Your task to perform on an android device: What's on my calendar tomorrow? Image 0: 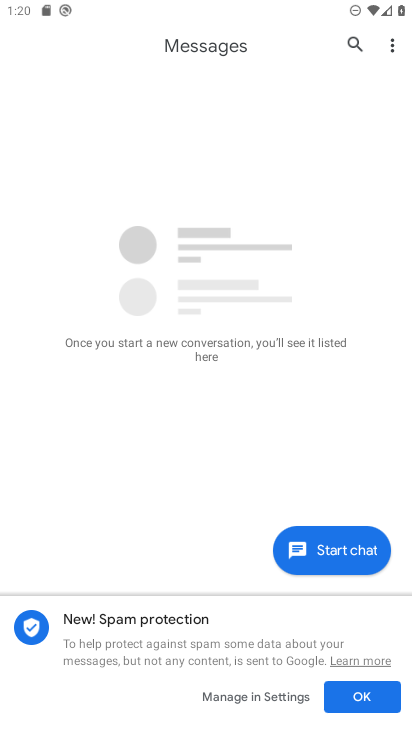
Step 0: press home button
Your task to perform on an android device: What's on my calendar tomorrow? Image 1: 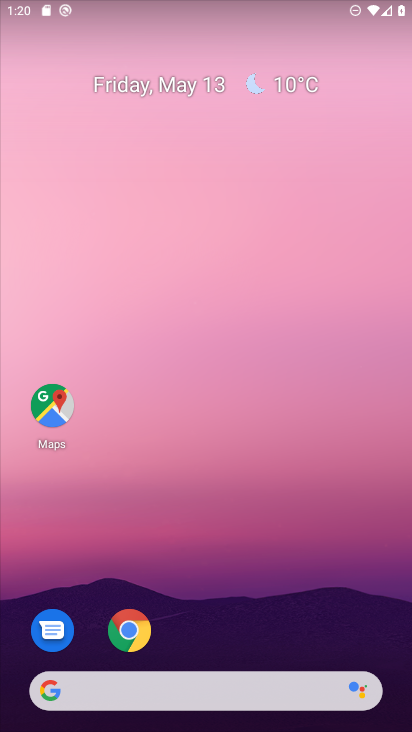
Step 1: drag from (203, 652) to (228, 321)
Your task to perform on an android device: What's on my calendar tomorrow? Image 2: 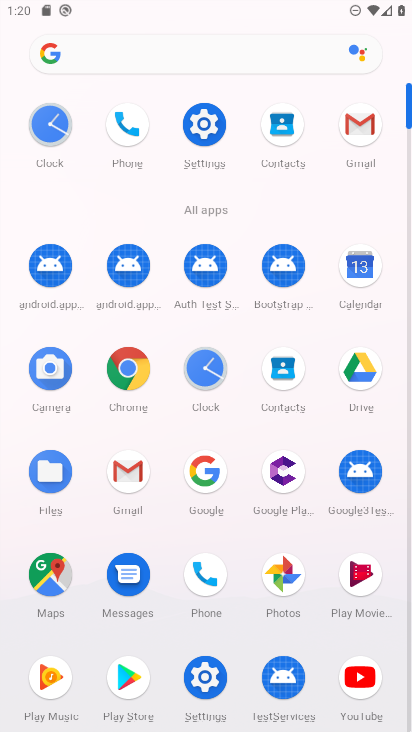
Step 2: click (361, 277)
Your task to perform on an android device: What's on my calendar tomorrow? Image 3: 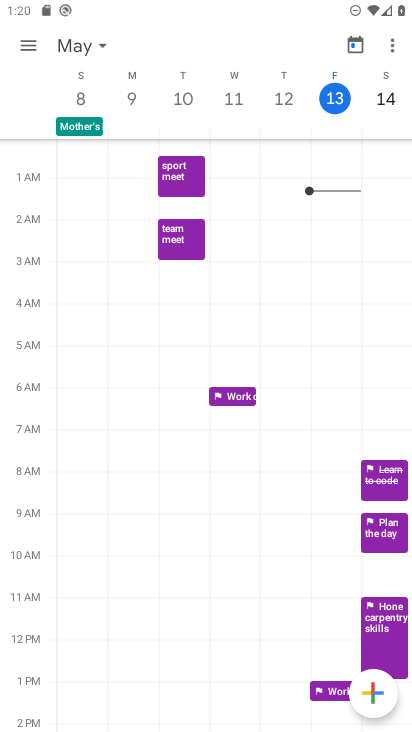
Step 3: click (22, 39)
Your task to perform on an android device: What's on my calendar tomorrow? Image 4: 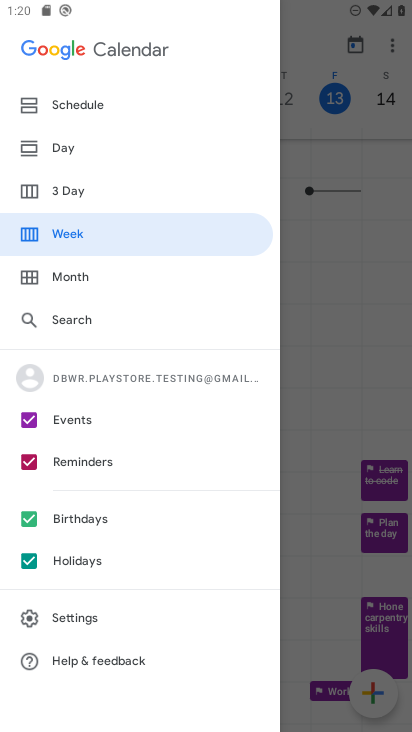
Step 4: click (94, 110)
Your task to perform on an android device: What's on my calendar tomorrow? Image 5: 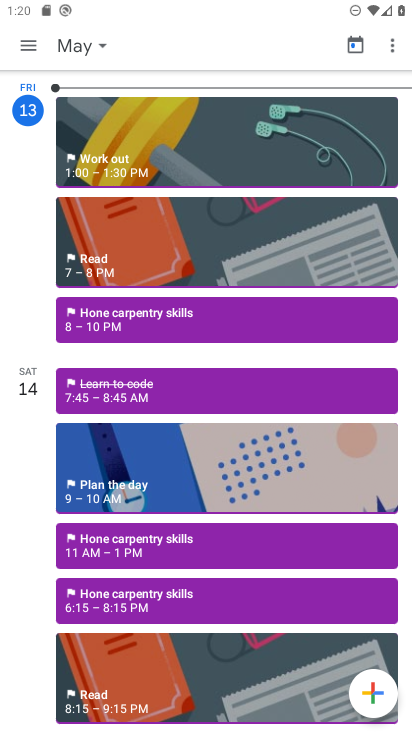
Step 5: click (94, 110)
Your task to perform on an android device: What's on my calendar tomorrow? Image 6: 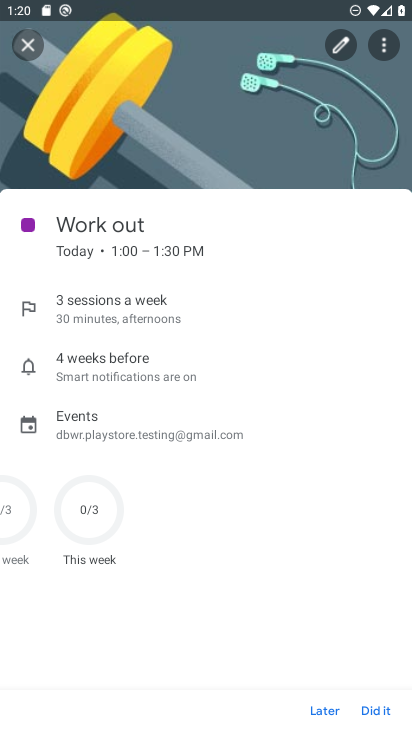
Step 6: click (22, 36)
Your task to perform on an android device: What's on my calendar tomorrow? Image 7: 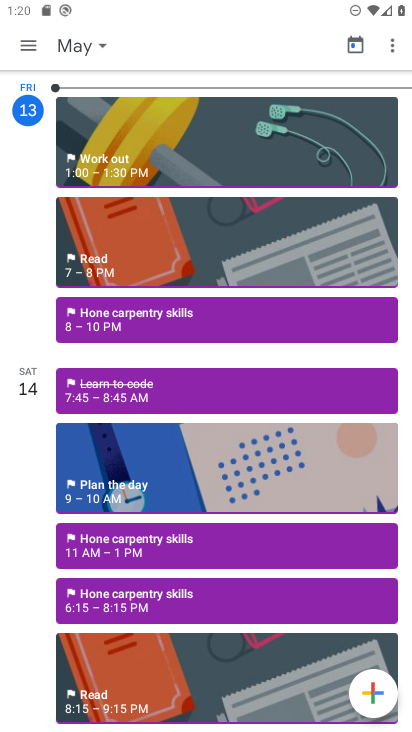
Step 7: task complete